Your task to perform on an android device: Go to calendar. Show me events next week Image 0: 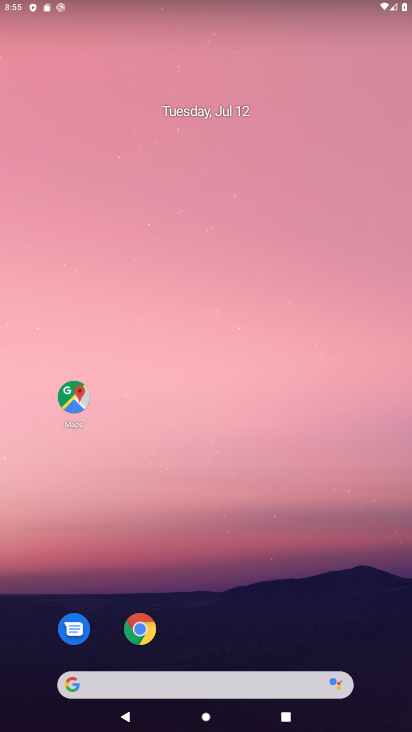
Step 0: drag from (328, 551) to (258, 192)
Your task to perform on an android device: Go to calendar. Show me events next week Image 1: 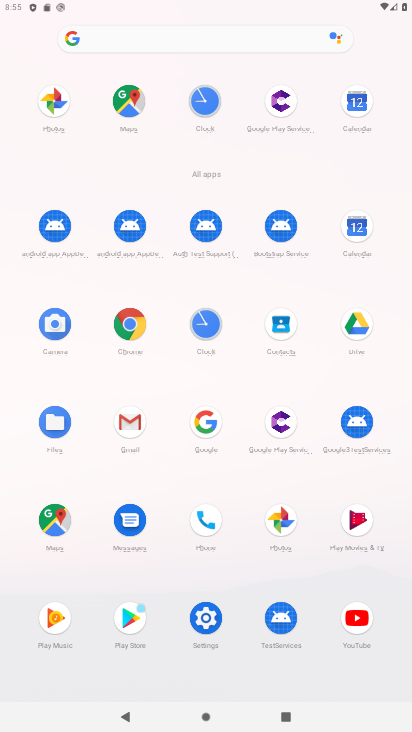
Step 1: click (347, 222)
Your task to perform on an android device: Go to calendar. Show me events next week Image 2: 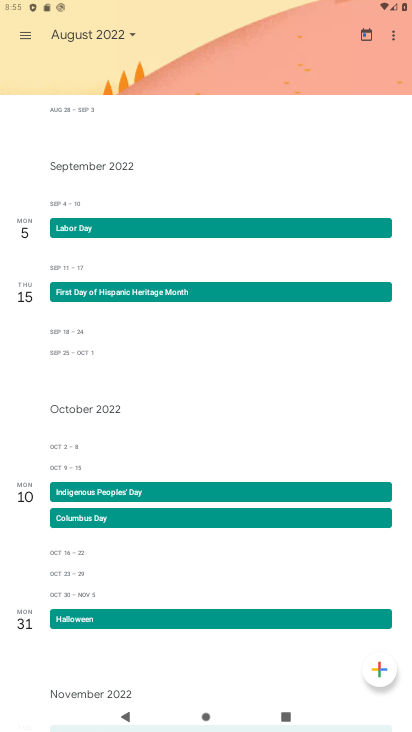
Step 2: click (25, 38)
Your task to perform on an android device: Go to calendar. Show me events next week Image 3: 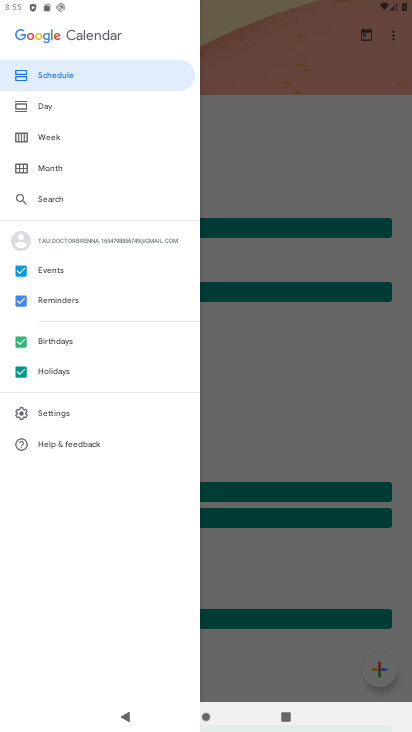
Step 3: click (58, 138)
Your task to perform on an android device: Go to calendar. Show me events next week Image 4: 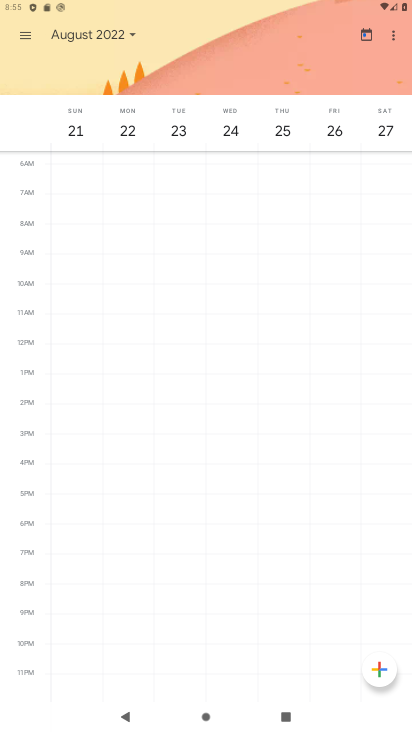
Step 4: click (126, 32)
Your task to perform on an android device: Go to calendar. Show me events next week Image 5: 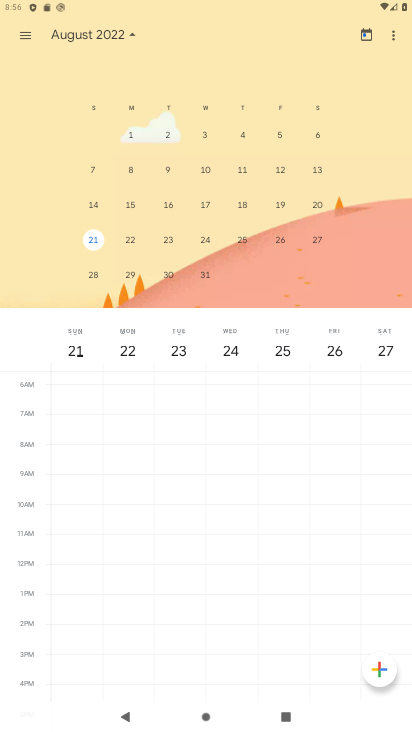
Step 5: click (89, 35)
Your task to perform on an android device: Go to calendar. Show me events next week Image 6: 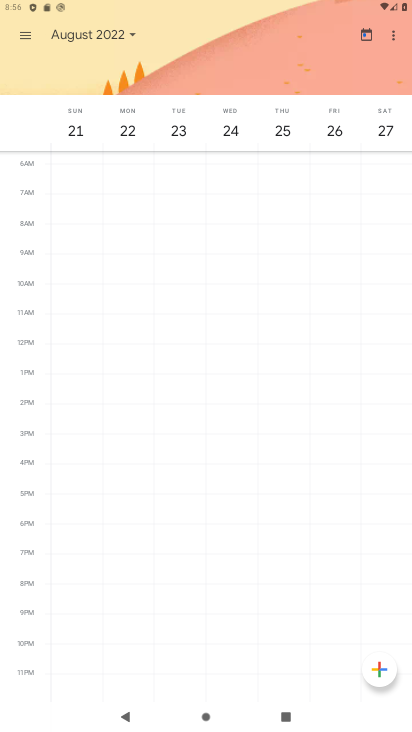
Step 6: click (127, 31)
Your task to perform on an android device: Go to calendar. Show me events next week Image 7: 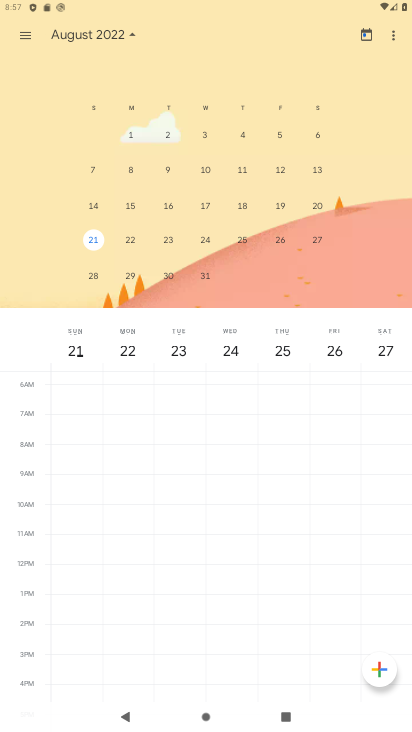
Step 7: drag from (128, 180) to (379, 165)
Your task to perform on an android device: Go to calendar. Show me events next week Image 8: 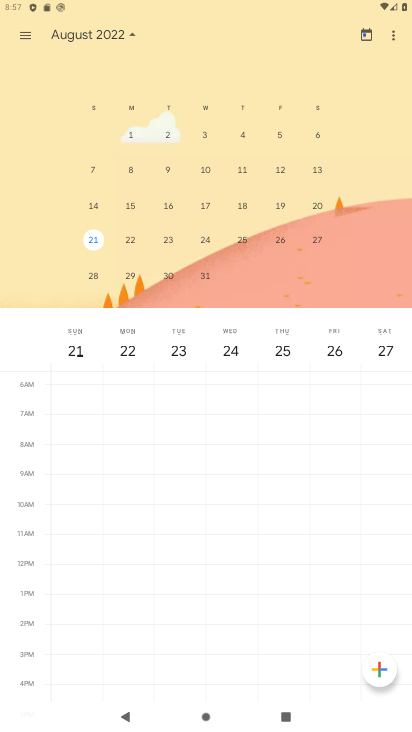
Step 8: drag from (55, 178) to (398, 112)
Your task to perform on an android device: Go to calendar. Show me events next week Image 9: 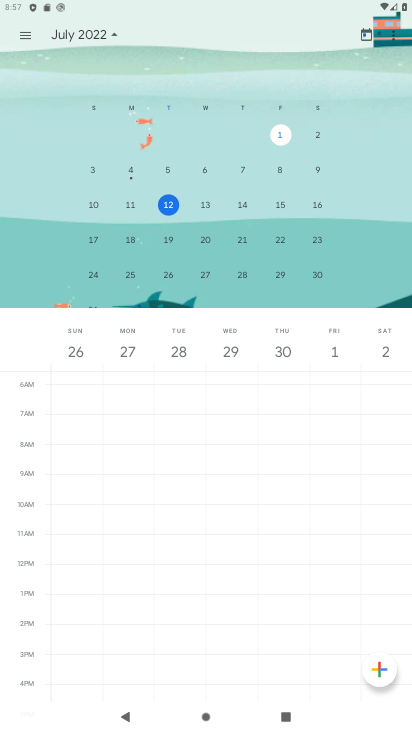
Step 9: click (207, 241)
Your task to perform on an android device: Go to calendar. Show me events next week Image 10: 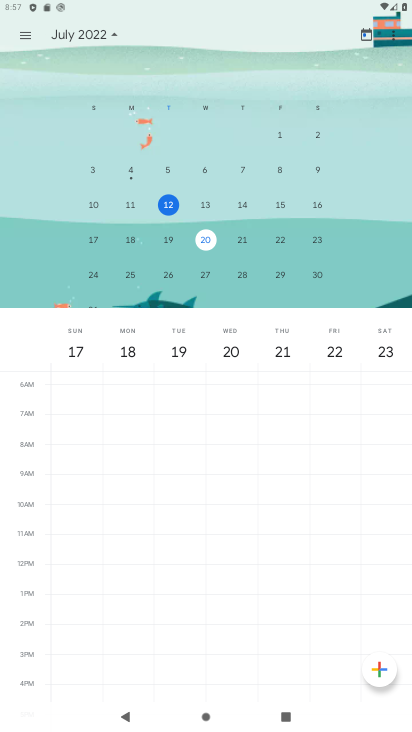
Step 10: task complete